Your task to perform on an android device: Search for pizza restaurants on Maps Image 0: 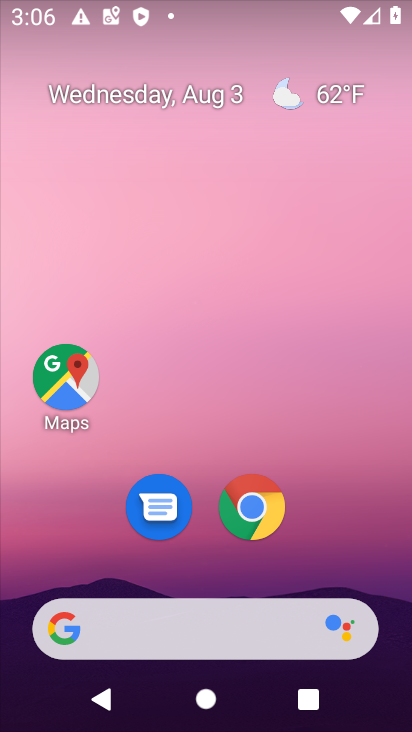
Step 0: click (61, 406)
Your task to perform on an android device: Search for pizza restaurants on Maps Image 1: 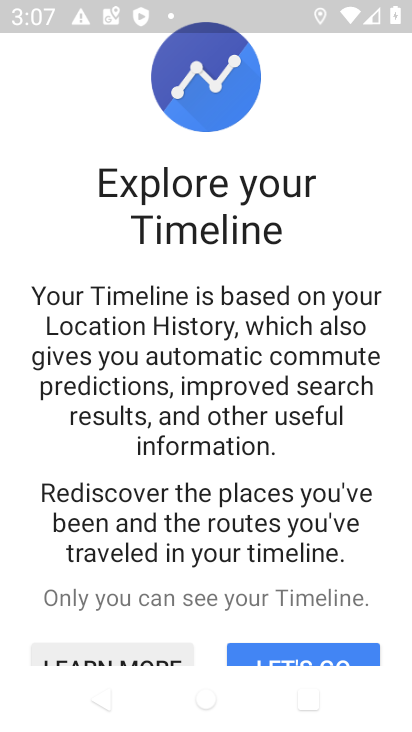
Step 1: press back button
Your task to perform on an android device: Search for pizza restaurants on Maps Image 2: 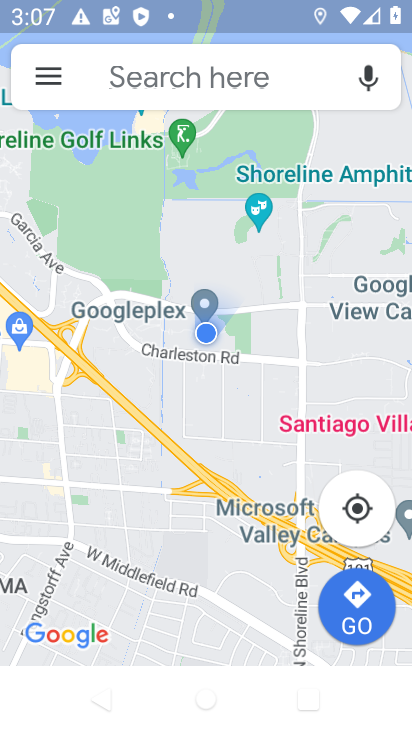
Step 2: click (159, 76)
Your task to perform on an android device: Search for pizza restaurants on Maps Image 3: 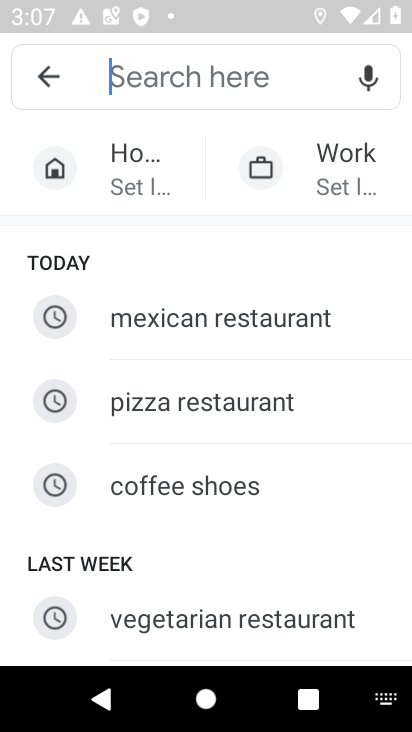
Step 3: click (222, 405)
Your task to perform on an android device: Search for pizza restaurants on Maps Image 4: 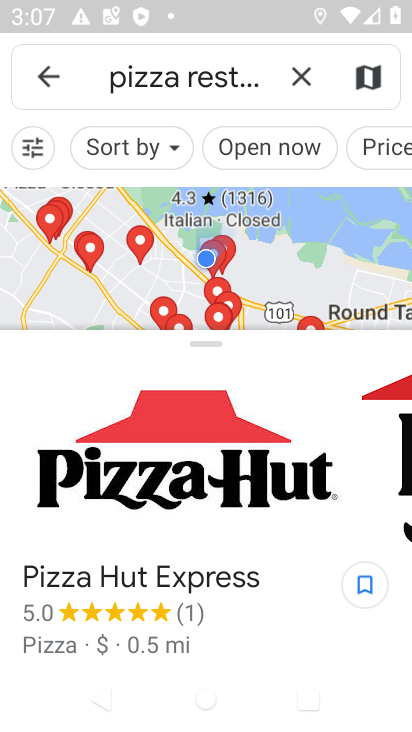
Step 4: task complete